Your task to perform on an android device: Open the map Image 0: 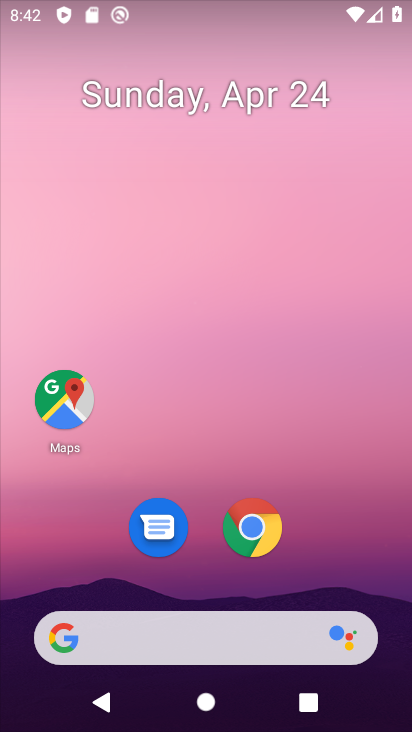
Step 0: drag from (381, 620) to (240, 77)
Your task to perform on an android device: Open the map Image 1: 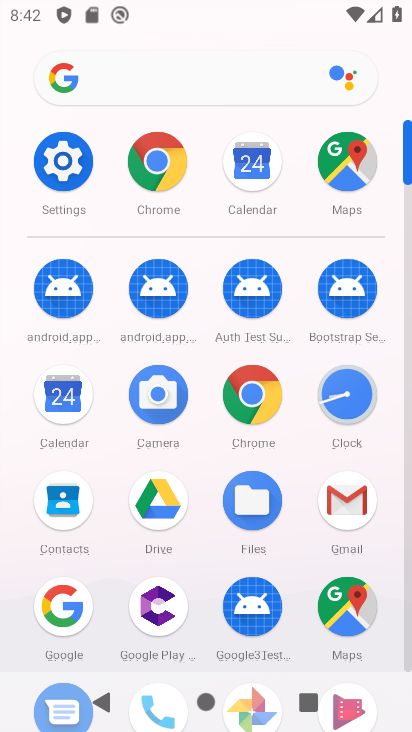
Step 1: click (347, 608)
Your task to perform on an android device: Open the map Image 2: 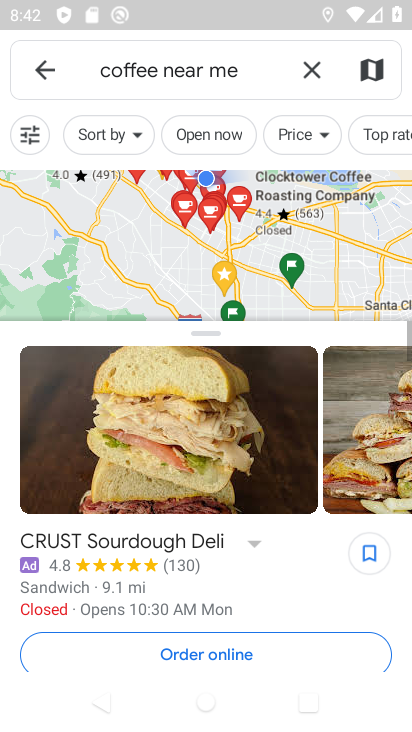
Step 2: click (305, 67)
Your task to perform on an android device: Open the map Image 3: 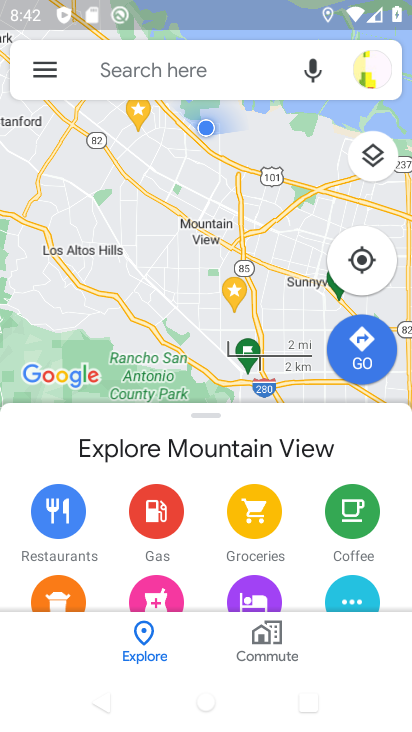
Step 3: task complete